Your task to perform on an android device: find photos in the google photos app Image 0: 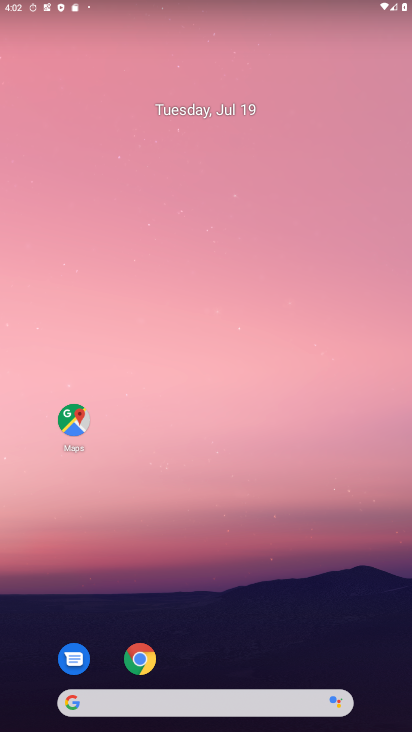
Step 0: drag from (254, 534) to (250, 0)
Your task to perform on an android device: find photos in the google photos app Image 1: 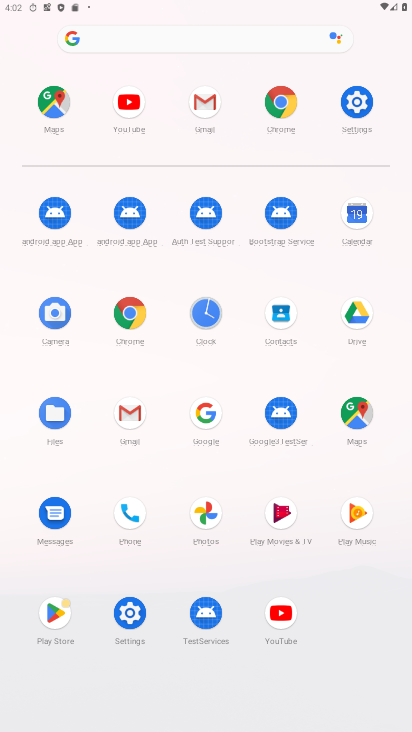
Step 1: click (207, 516)
Your task to perform on an android device: find photos in the google photos app Image 2: 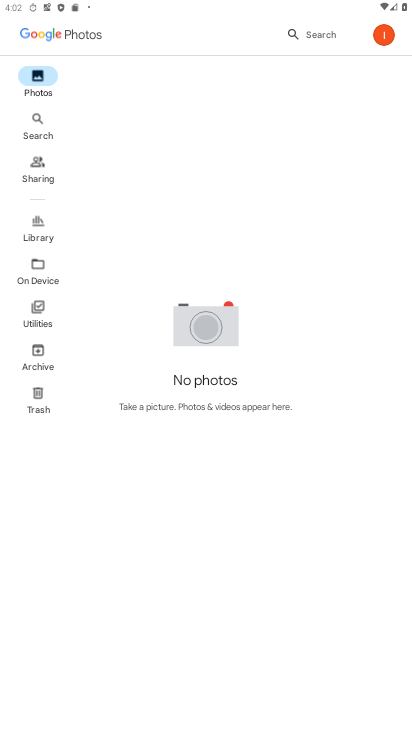
Step 2: click (17, 73)
Your task to perform on an android device: find photos in the google photos app Image 3: 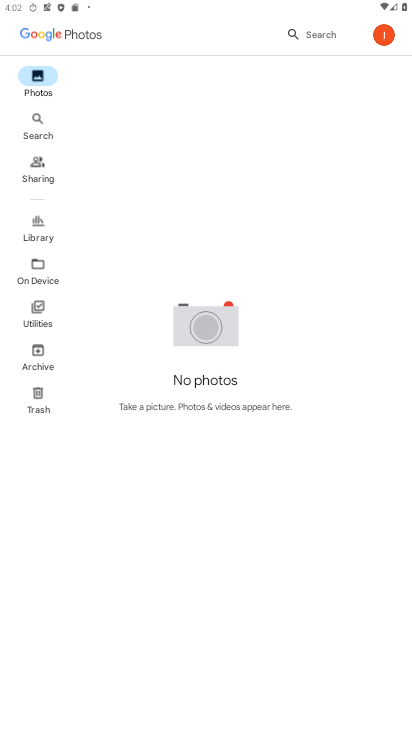
Step 3: task complete